Your task to perform on an android device: Go to Yahoo.com Image 0: 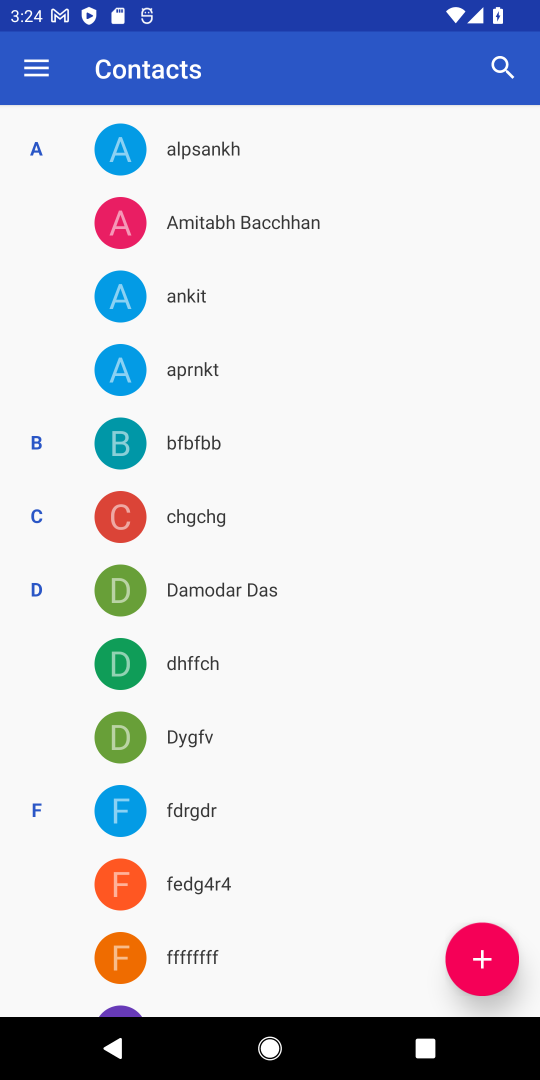
Step 0: press home button
Your task to perform on an android device: Go to Yahoo.com Image 1: 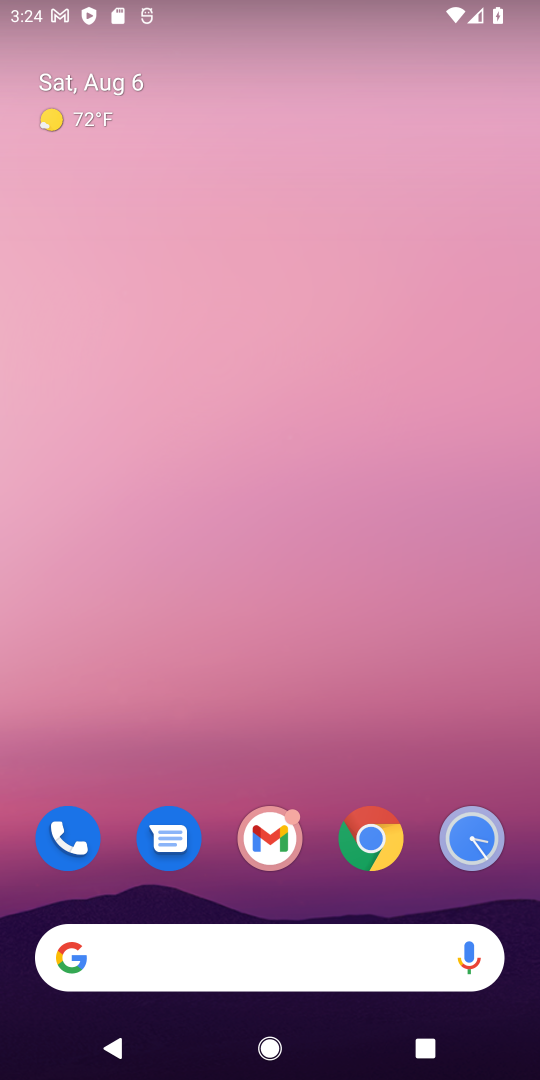
Step 1: click (380, 821)
Your task to perform on an android device: Go to Yahoo.com Image 2: 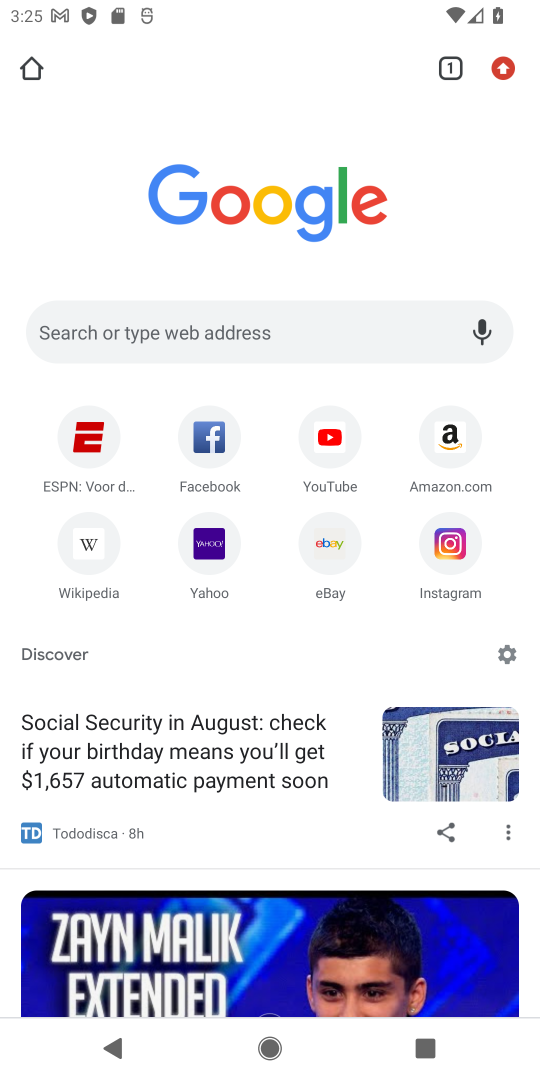
Step 2: click (214, 555)
Your task to perform on an android device: Go to Yahoo.com Image 3: 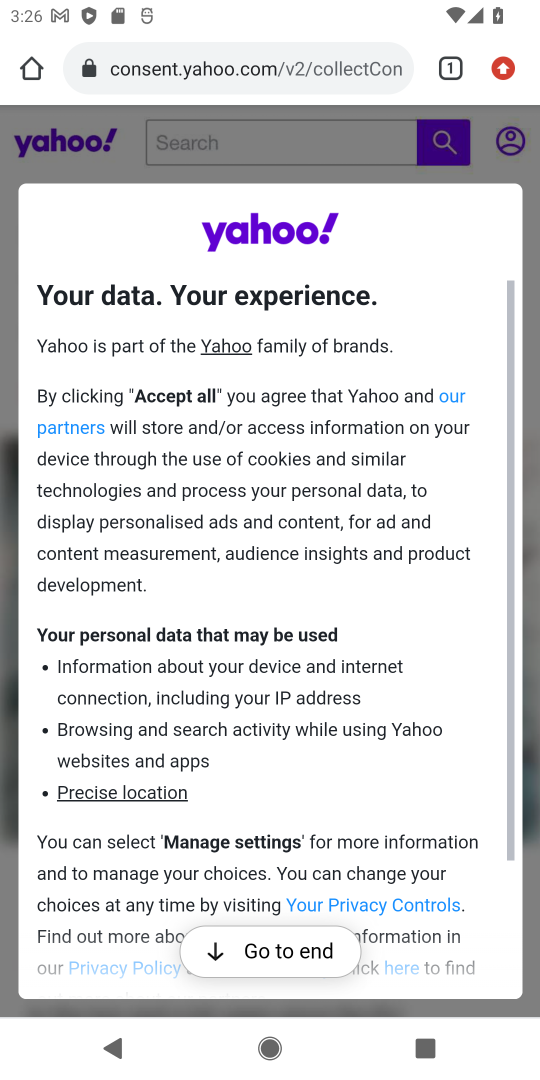
Step 3: task complete